Your task to perform on an android device: open a bookmark in the chrome app Image 0: 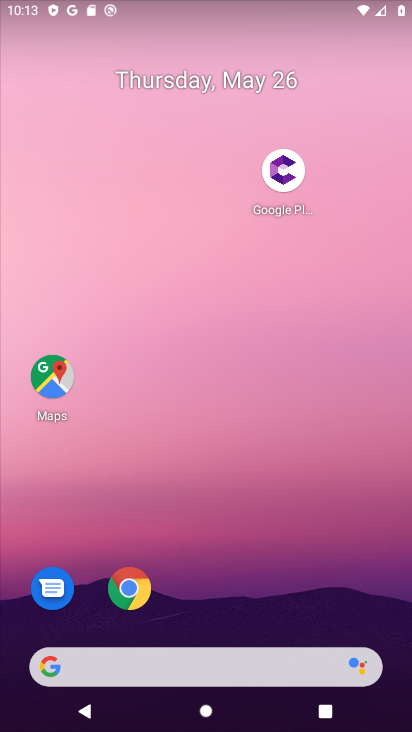
Step 0: click (22, 35)
Your task to perform on an android device: open a bookmark in the chrome app Image 1: 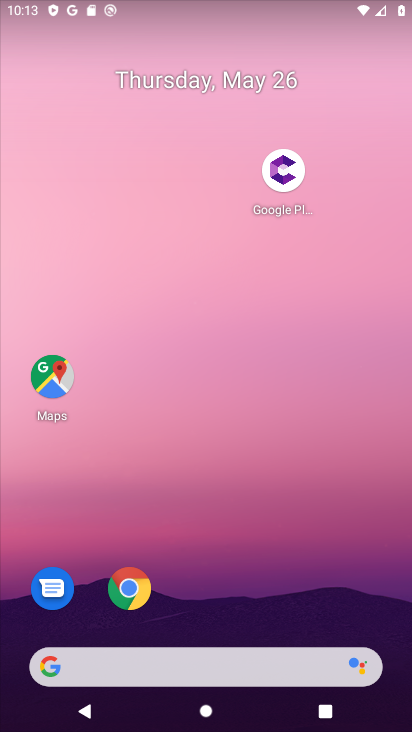
Step 1: drag from (11, 270) to (398, 407)
Your task to perform on an android device: open a bookmark in the chrome app Image 2: 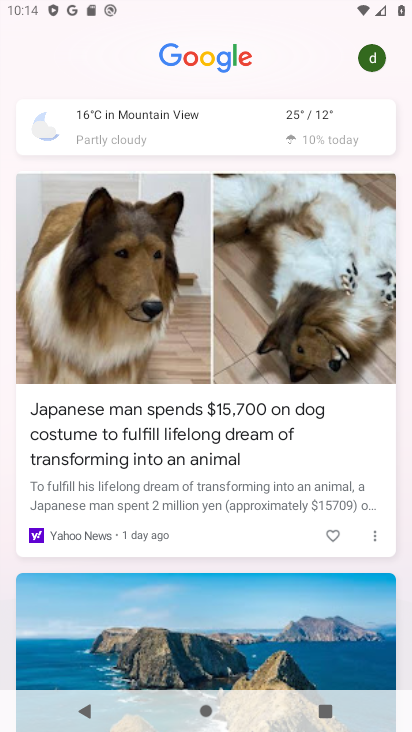
Step 2: drag from (315, 419) to (36, 424)
Your task to perform on an android device: open a bookmark in the chrome app Image 3: 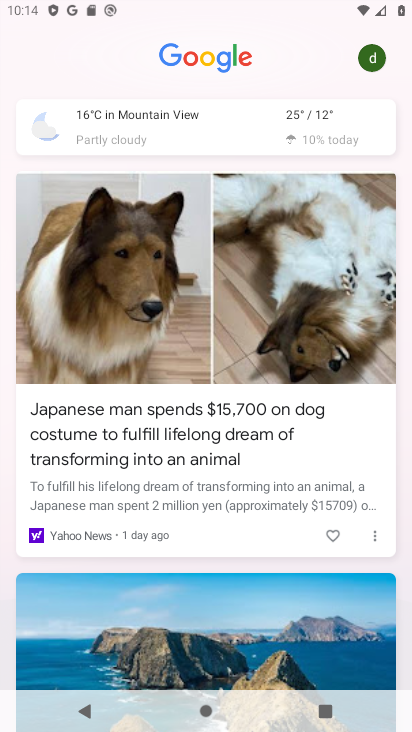
Step 3: click (0, 493)
Your task to perform on an android device: open a bookmark in the chrome app Image 4: 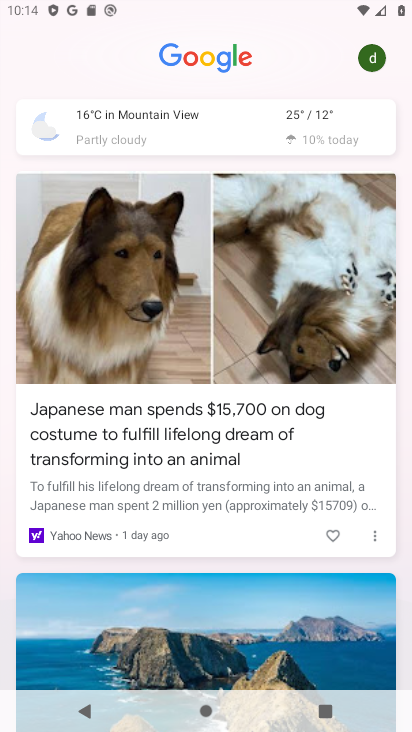
Step 4: drag from (281, 396) to (97, 445)
Your task to perform on an android device: open a bookmark in the chrome app Image 5: 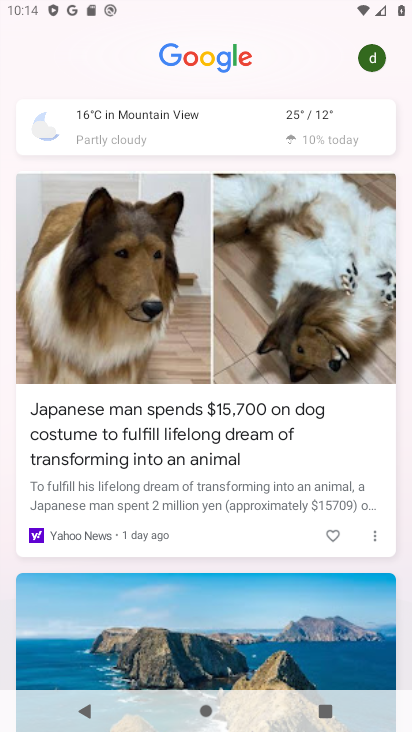
Step 5: drag from (301, 313) to (15, 394)
Your task to perform on an android device: open a bookmark in the chrome app Image 6: 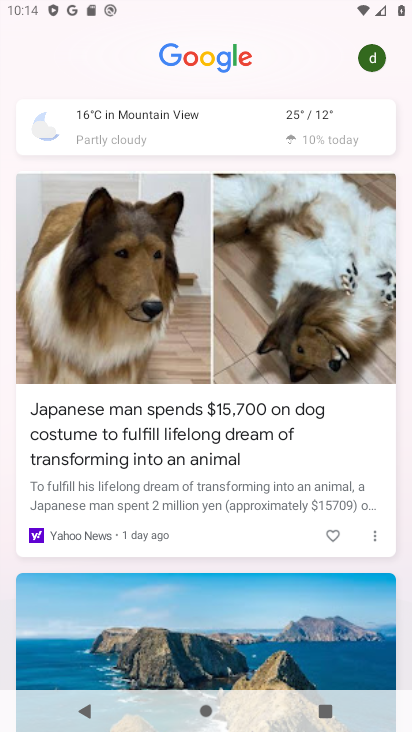
Step 6: drag from (366, 358) to (0, 452)
Your task to perform on an android device: open a bookmark in the chrome app Image 7: 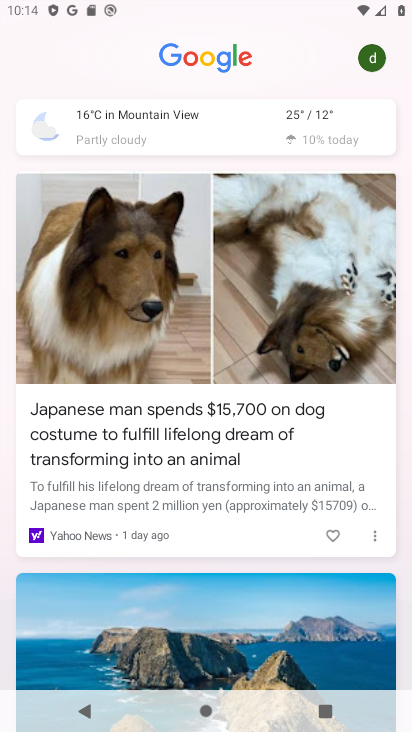
Step 7: drag from (290, 331) to (56, 306)
Your task to perform on an android device: open a bookmark in the chrome app Image 8: 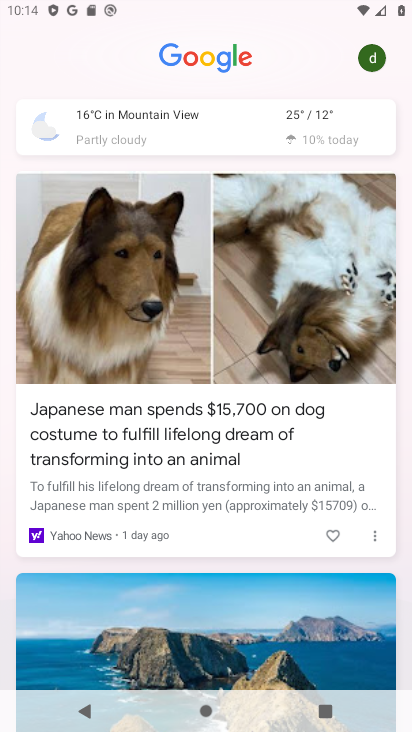
Step 8: drag from (33, 404) to (68, 403)
Your task to perform on an android device: open a bookmark in the chrome app Image 9: 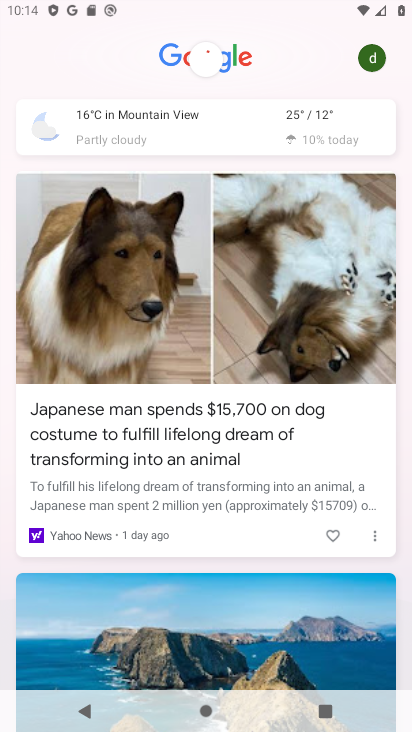
Step 9: press back button
Your task to perform on an android device: open a bookmark in the chrome app Image 10: 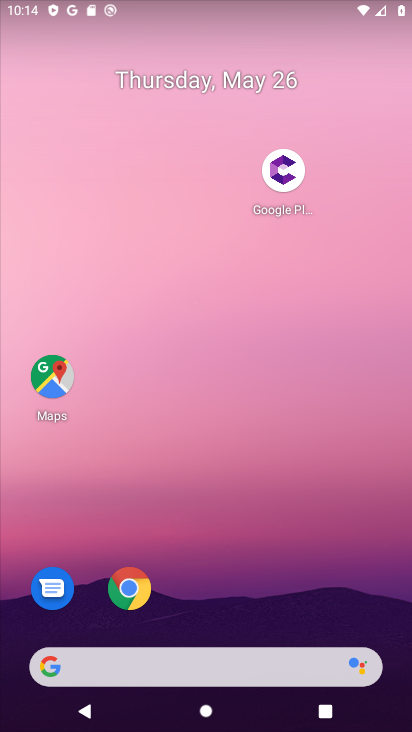
Step 10: press back button
Your task to perform on an android device: open a bookmark in the chrome app Image 11: 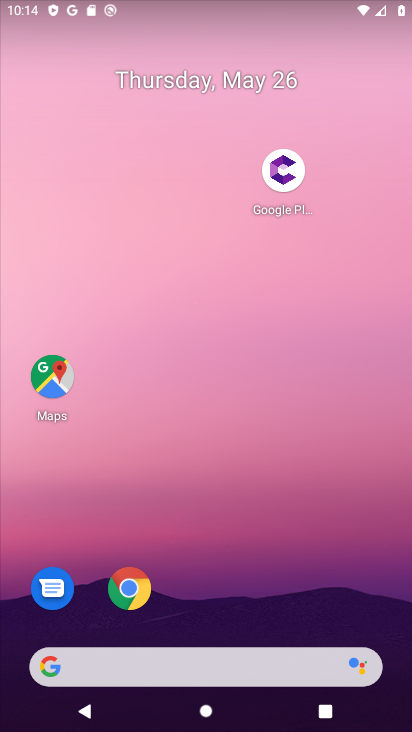
Step 11: drag from (253, 680) to (156, 16)
Your task to perform on an android device: open a bookmark in the chrome app Image 12: 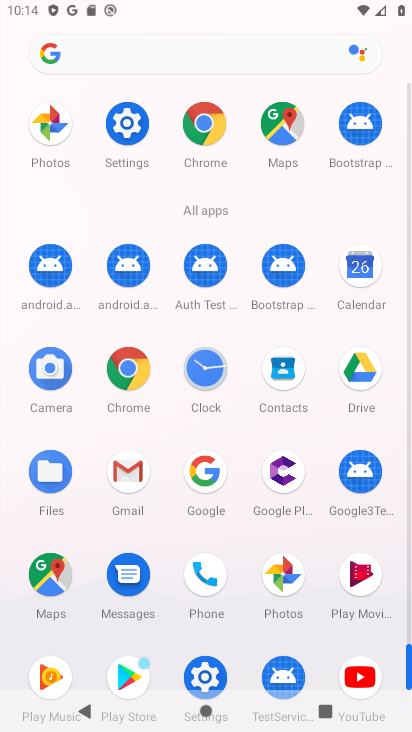
Step 12: drag from (232, 614) to (211, 157)
Your task to perform on an android device: open a bookmark in the chrome app Image 13: 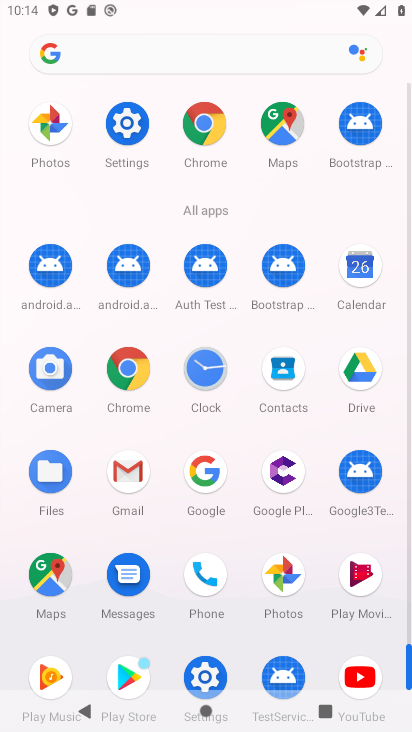
Step 13: click (203, 124)
Your task to perform on an android device: open a bookmark in the chrome app Image 14: 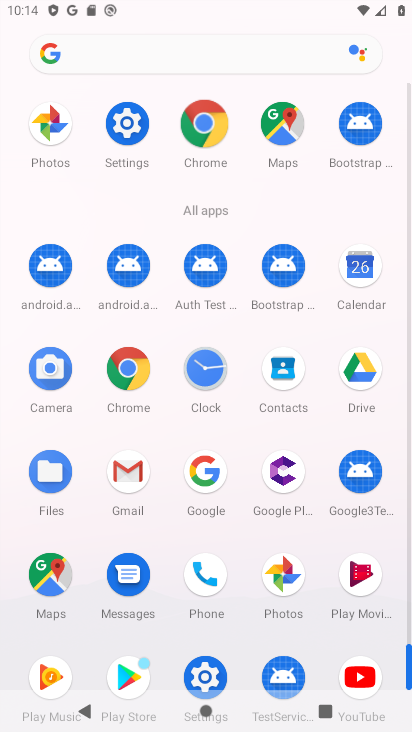
Step 14: click (203, 124)
Your task to perform on an android device: open a bookmark in the chrome app Image 15: 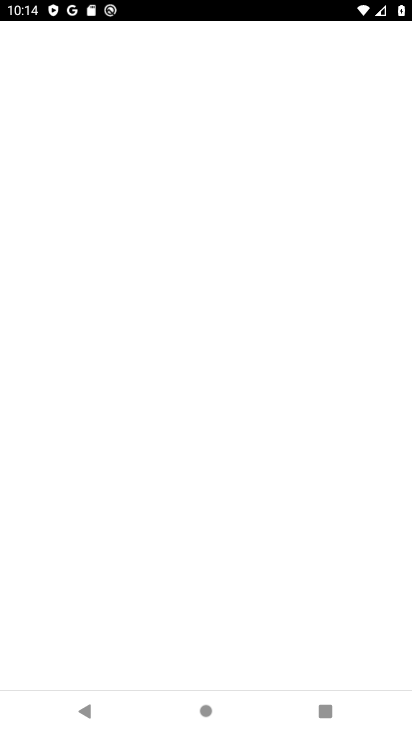
Step 15: click (203, 124)
Your task to perform on an android device: open a bookmark in the chrome app Image 16: 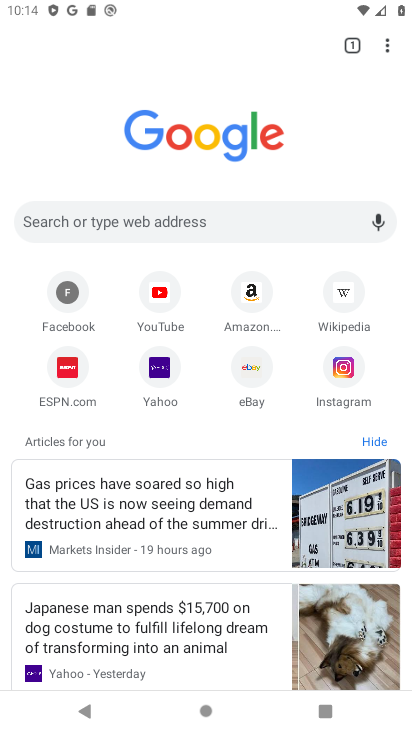
Step 16: click (386, 43)
Your task to perform on an android device: open a bookmark in the chrome app Image 17: 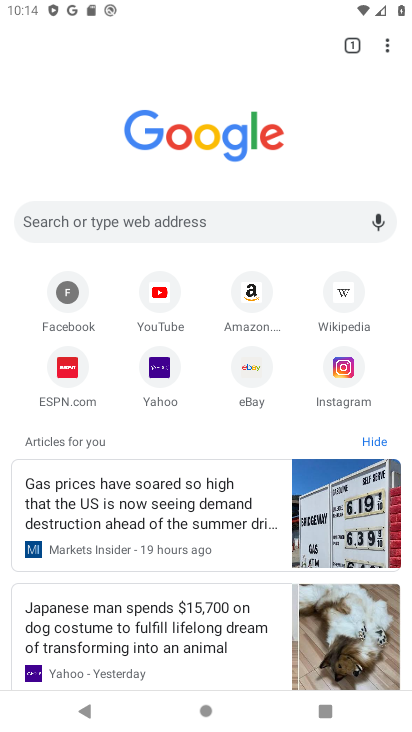
Step 17: drag from (388, 46) to (227, 168)
Your task to perform on an android device: open a bookmark in the chrome app Image 18: 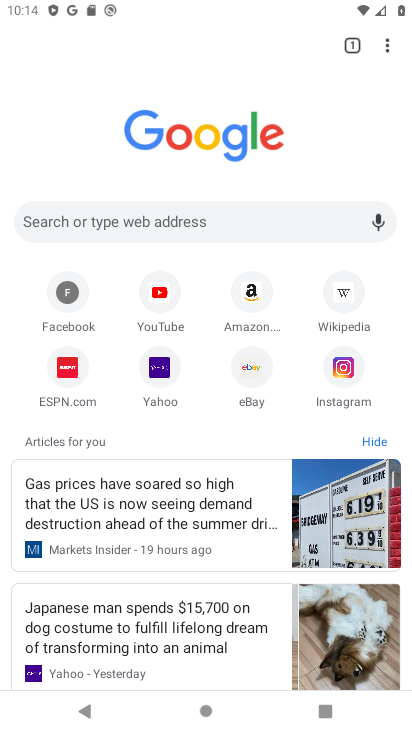
Step 18: click (228, 168)
Your task to perform on an android device: open a bookmark in the chrome app Image 19: 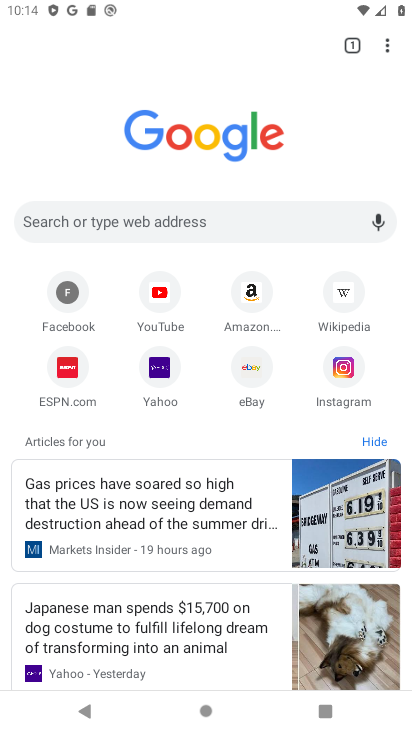
Step 19: click (229, 168)
Your task to perform on an android device: open a bookmark in the chrome app Image 20: 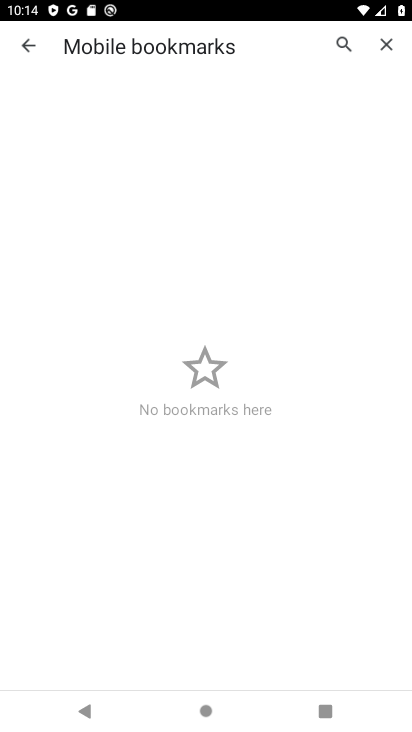
Step 20: task complete